Your task to perform on an android device: toggle show notifications on the lock screen Image 0: 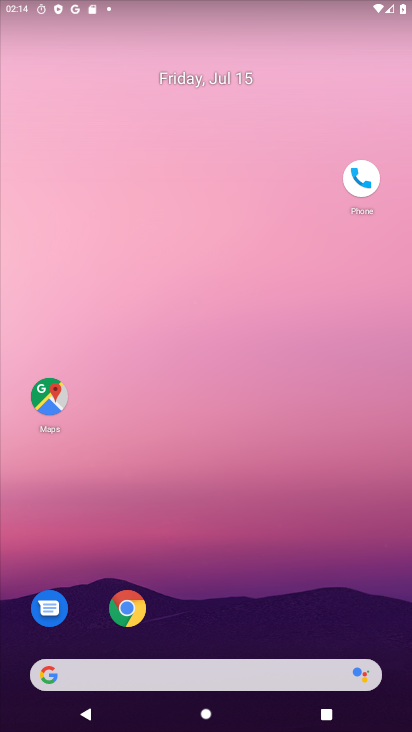
Step 0: drag from (198, 626) to (273, 240)
Your task to perform on an android device: toggle show notifications on the lock screen Image 1: 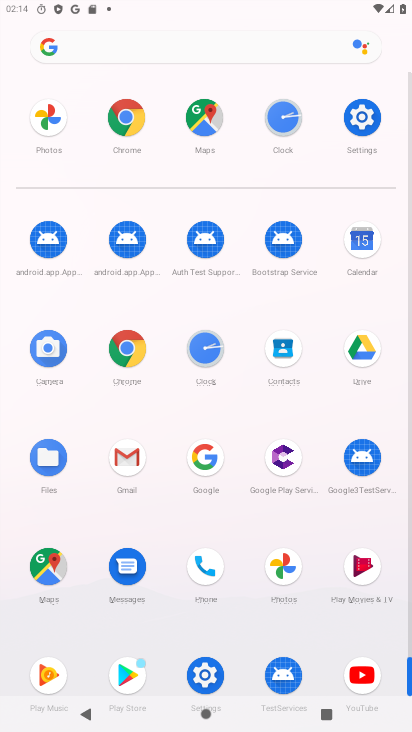
Step 1: drag from (216, 643) to (258, 296)
Your task to perform on an android device: toggle show notifications on the lock screen Image 2: 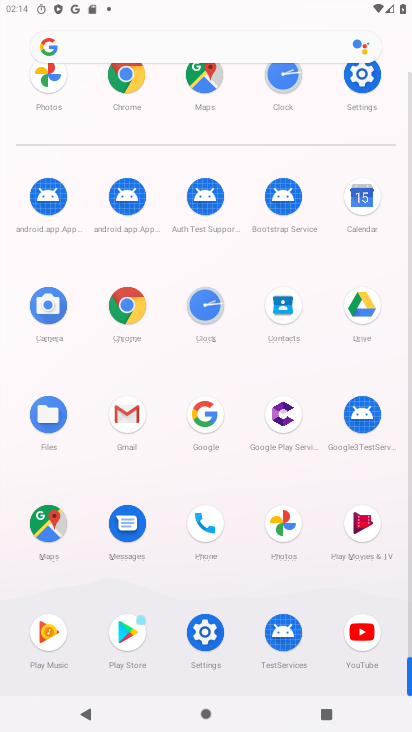
Step 2: click (198, 628)
Your task to perform on an android device: toggle show notifications on the lock screen Image 3: 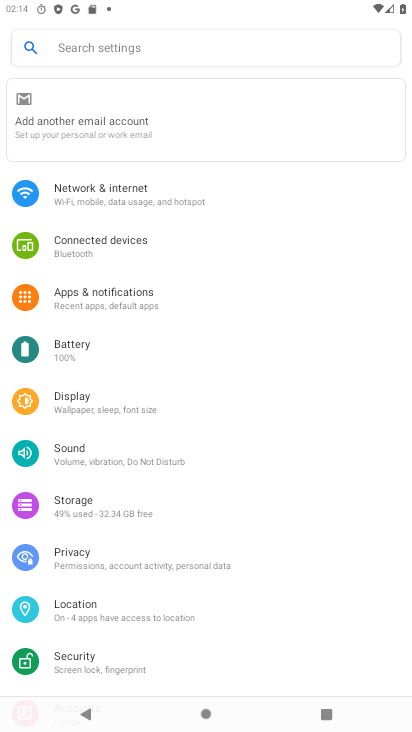
Step 3: drag from (221, 504) to (271, 222)
Your task to perform on an android device: toggle show notifications on the lock screen Image 4: 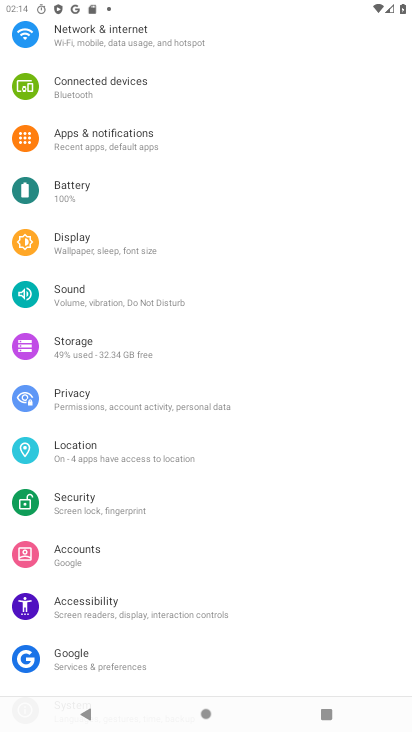
Step 4: drag from (187, 641) to (223, 324)
Your task to perform on an android device: toggle show notifications on the lock screen Image 5: 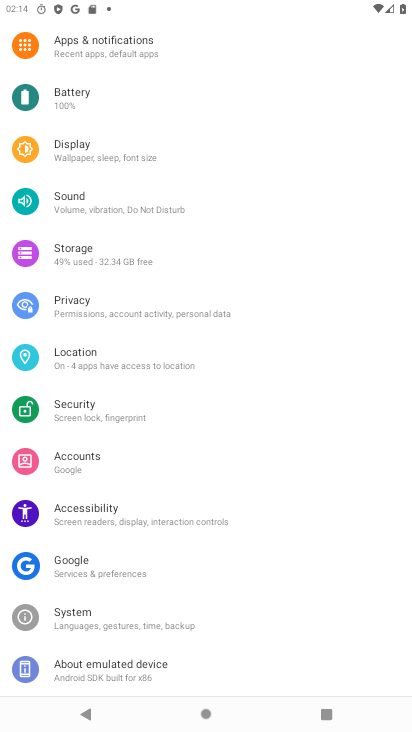
Step 5: drag from (211, 212) to (243, 727)
Your task to perform on an android device: toggle show notifications on the lock screen Image 6: 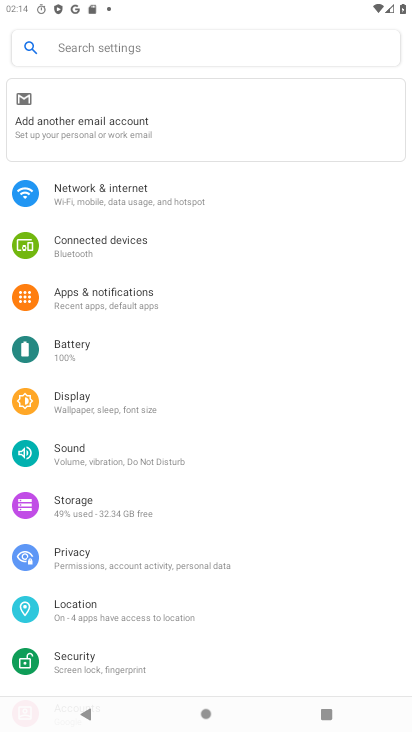
Step 6: click (123, 288)
Your task to perform on an android device: toggle show notifications on the lock screen Image 7: 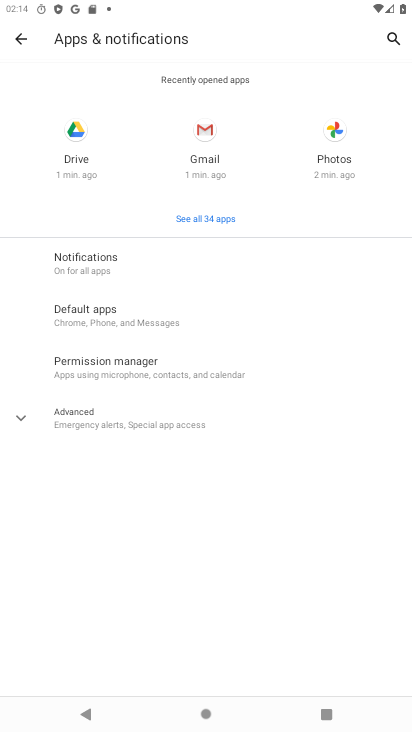
Step 7: click (249, 269)
Your task to perform on an android device: toggle show notifications on the lock screen Image 8: 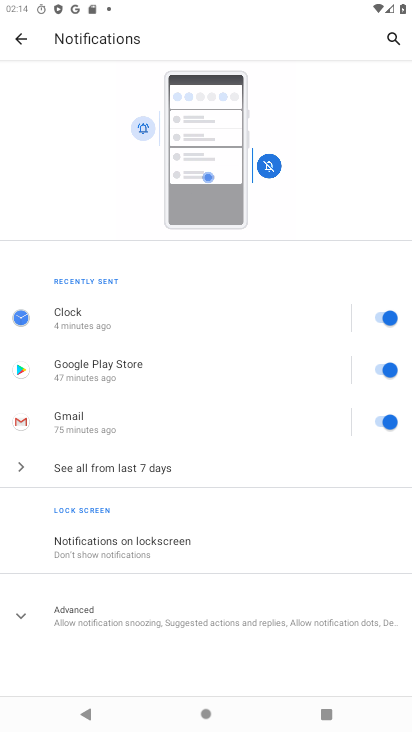
Step 8: click (140, 538)
Your task to perform on an android device: toggle show notifications on the lock screen Image 9: 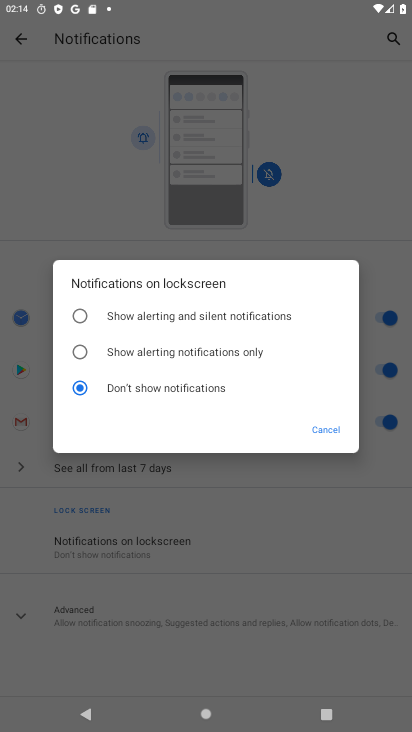
Step 9: click (81, 324)
Your task to perform on an android device: toggle show notifications on the lock screen Image 10: 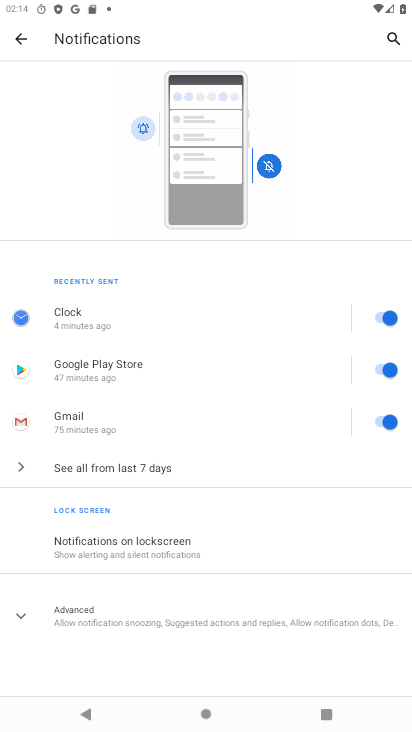
Step 10: task complete